Your task to perform on an android device: Open my contact list Image 0: 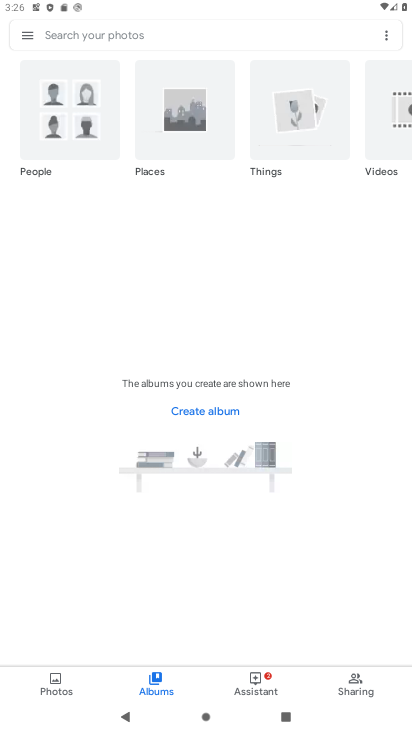
Step 0: press home button
Your task to perform on an android device: Open my contact list Image 1: 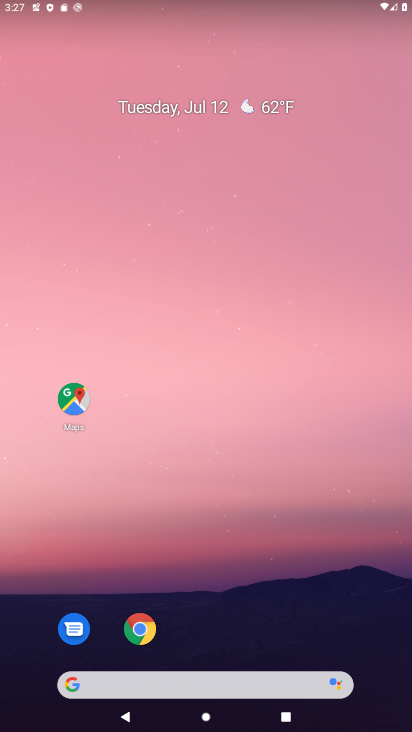
Step 1: drag from (194, 667) to (196, 89)
Your task to perform on an android device: Open my contact list Image 2: 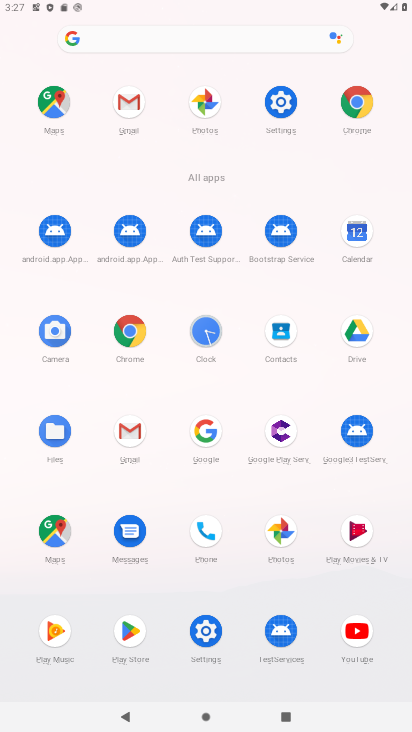
Step 2: click (194, 536)
Your task to perform on an android device: Open my contact list Image 3: 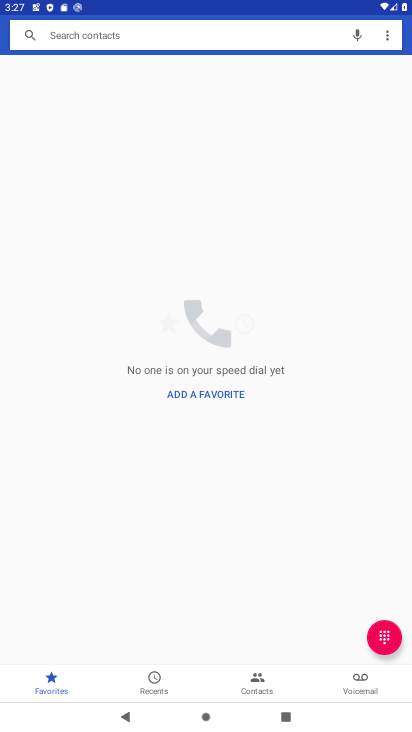
Step 3: click (260, 688)
Your task to perform on an android device: Open my contact list Image 4: 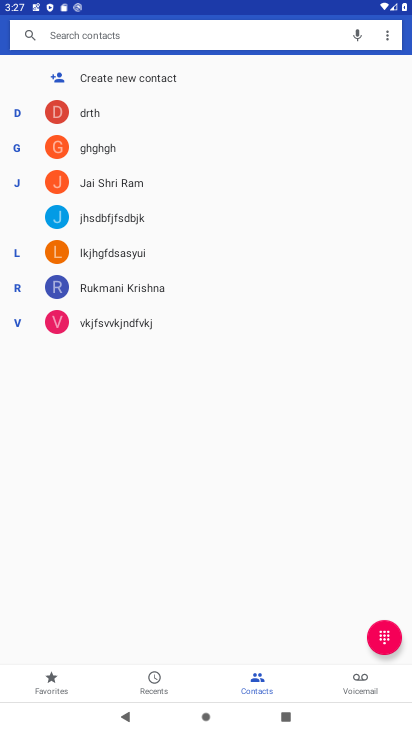
Step 4: task complete